Your task to perform on an android device: add a label to a message in the gmail app Image 0: 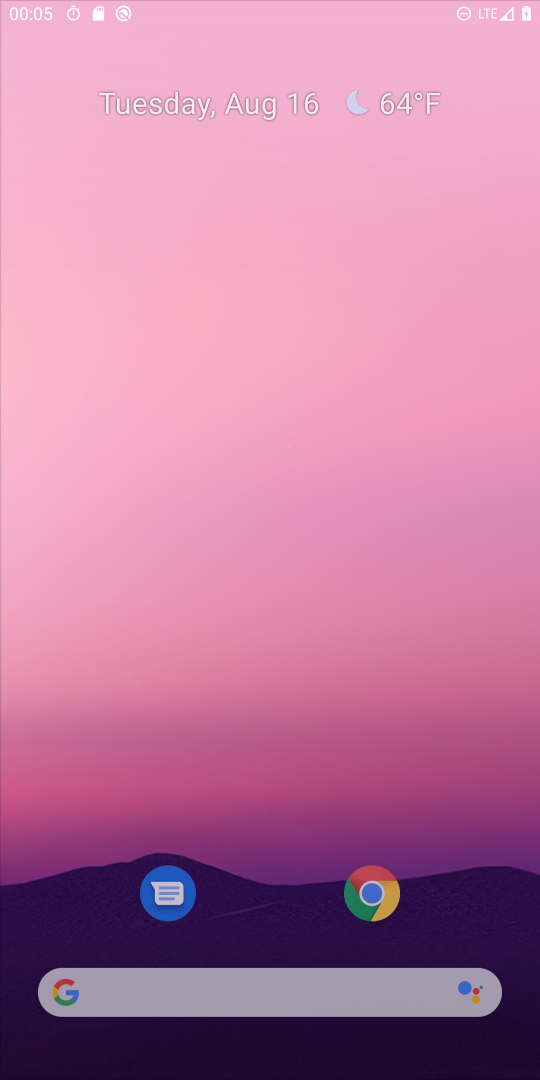
Step 0: press home button
Your task to perform on an android device: add a label to a message in the gmail app Image 1: 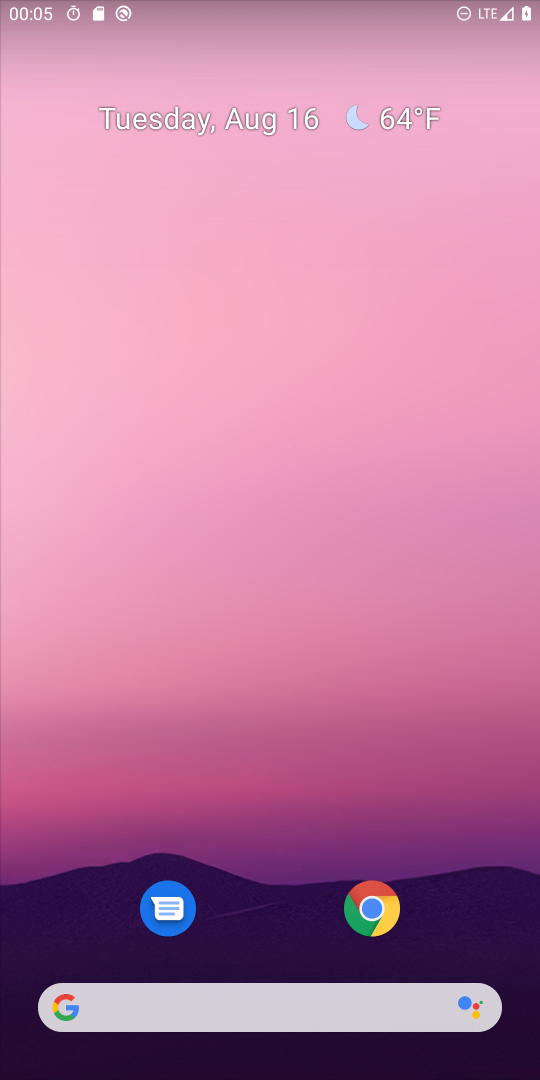
Step 1: drag from (274, 626) to (231, 136)
Your task to perform on an android device: add a label to a message in the gmail app Image 2: 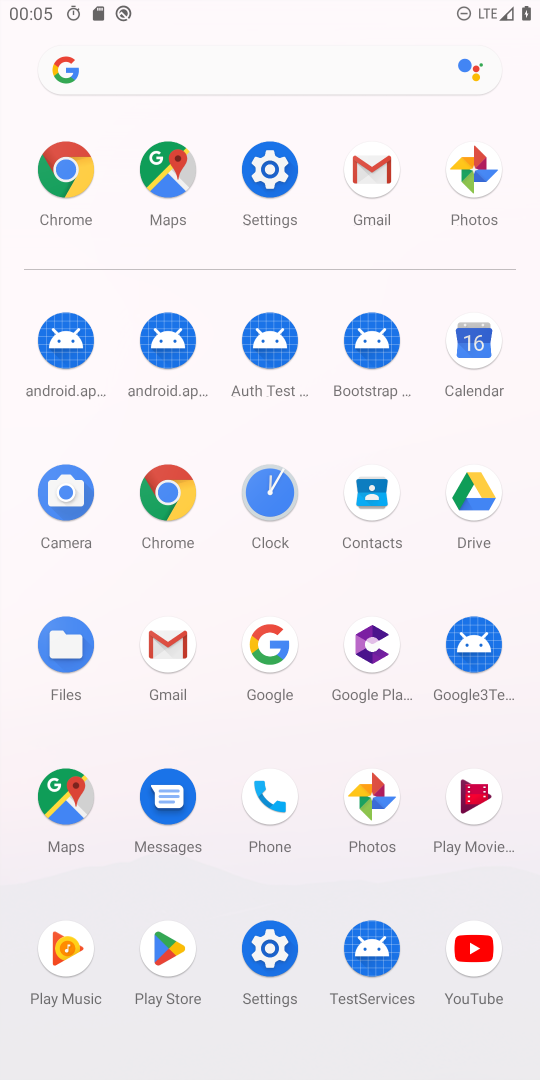
Step 2: click (365, 183)
Your task to perform on an android device: add a label to a message in the gmail app Image 3: 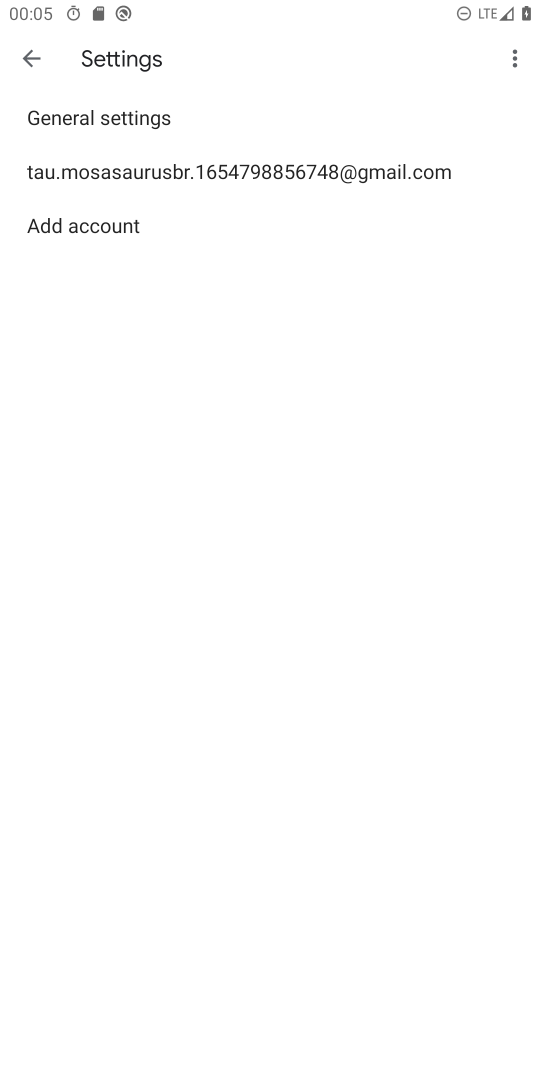
Step 3: click (20, 52)
Your task to perform on an android device: add a label to a message in the gmail app Image 4: 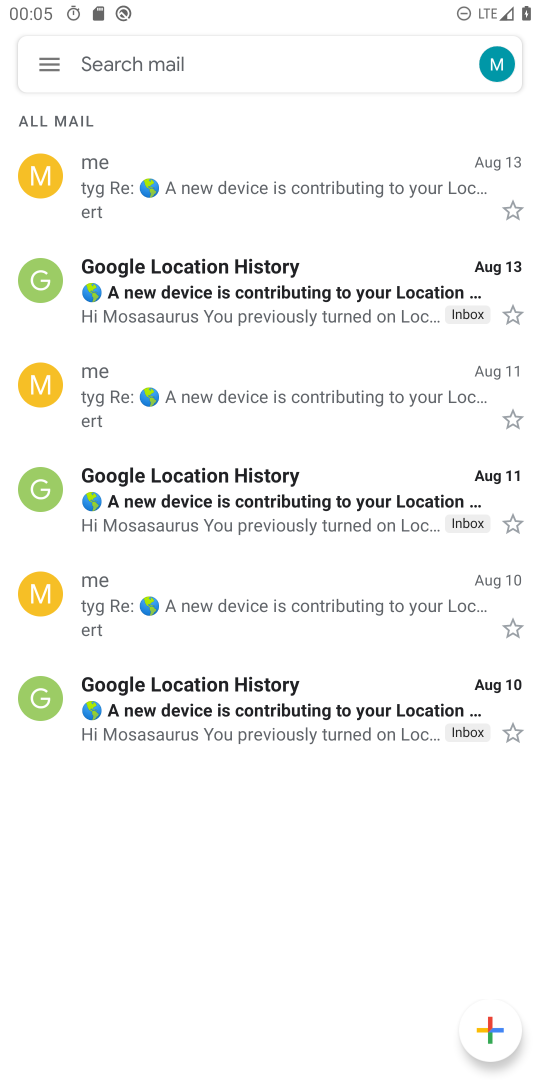
Step 4: click (20, 52)
Your task to perform on an android device: add a label to a message in the gmail app Image 5: 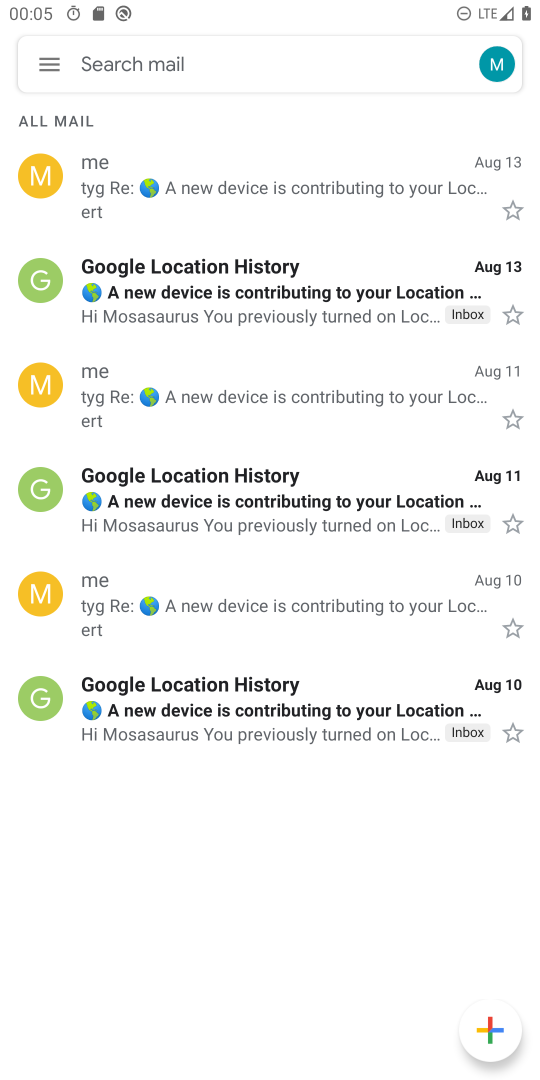
Step 5: click (33, 282)
Your task to perform on an android device: add a label to a message in the gmail app Image 6: 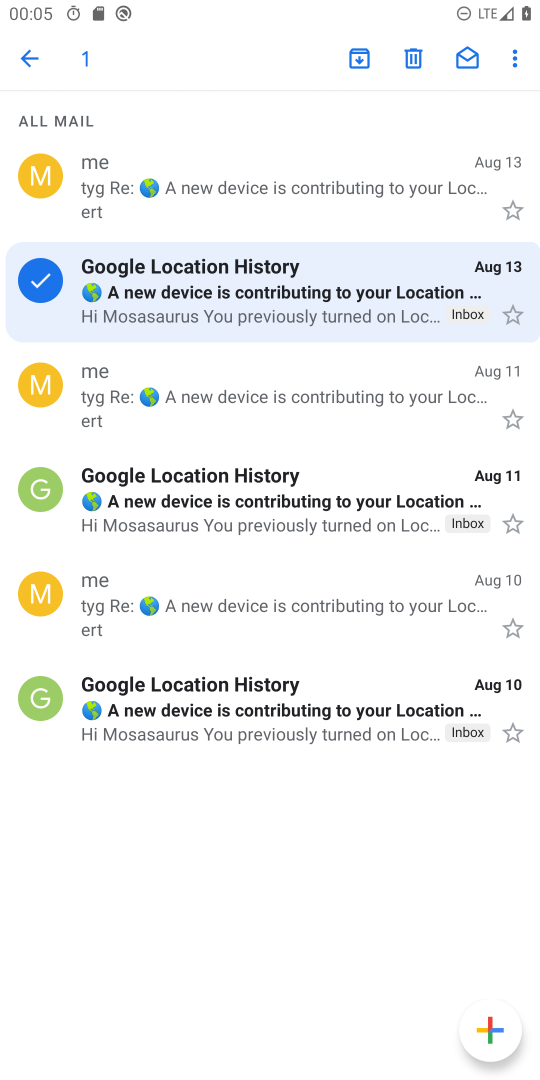
Step 6: click (528, 62)
Your task to perform on an android device: add a label to a message in the gmail app Image 7: 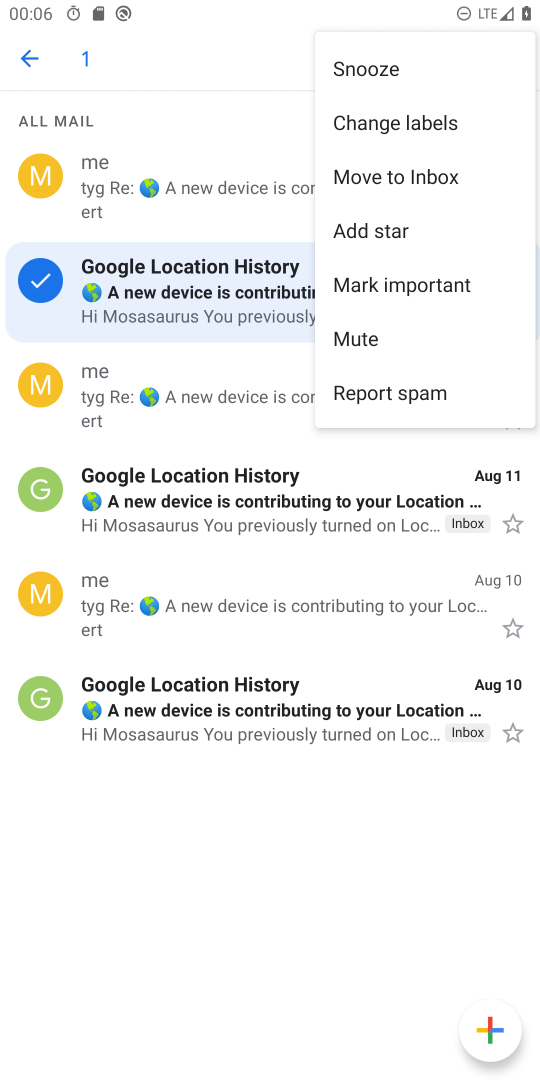
Step 7: click (396, 128)
Your task to perform on an android device: add a label to a message in the gmail app Image 8: 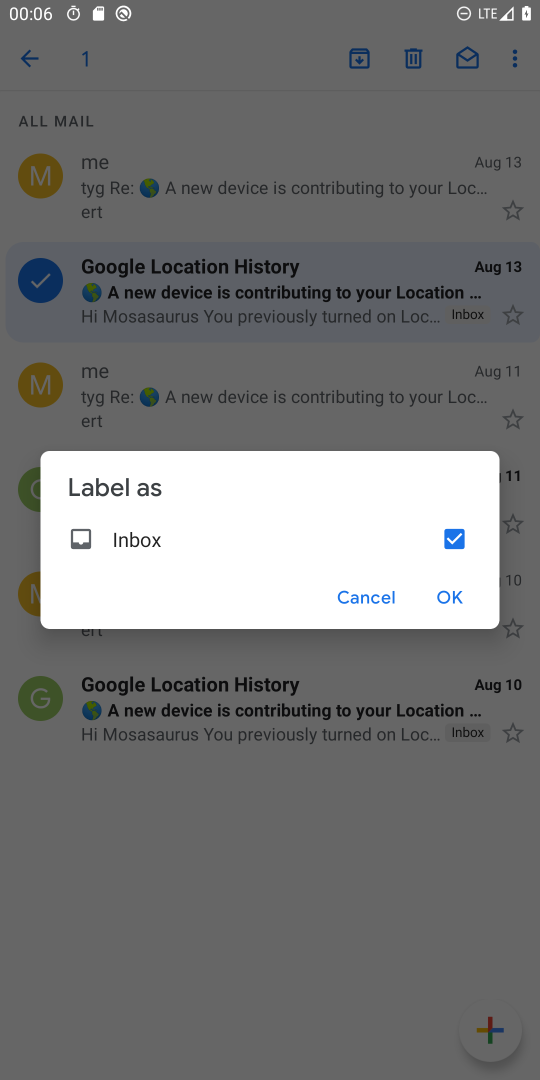
Step 8: click (451, 604)
Your task to perform on an android device: add a label to a message in the gmail app Image 9: 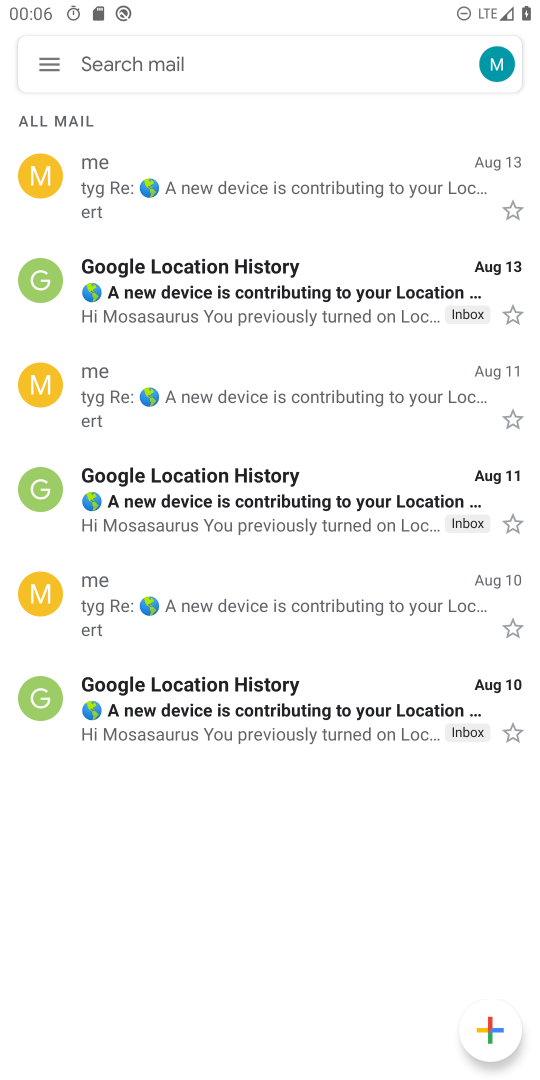
Step 9: task complete